Your task to perform on an android device: open wifi settings Image 0: 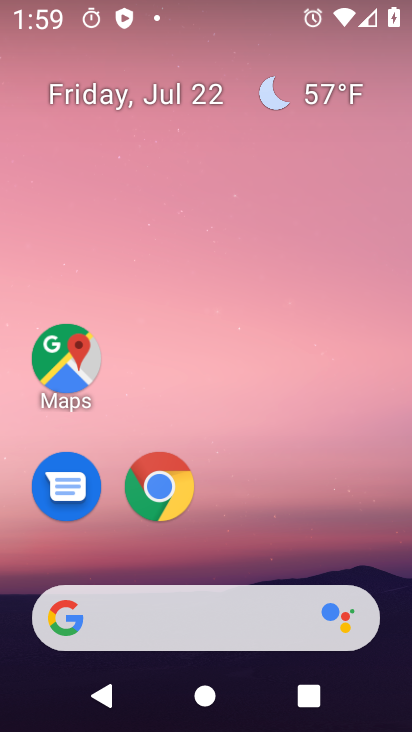
Step 0: drag from (333, 551) to (346, 144)
Your task to perform on an android device: open wifi settings Image 1: 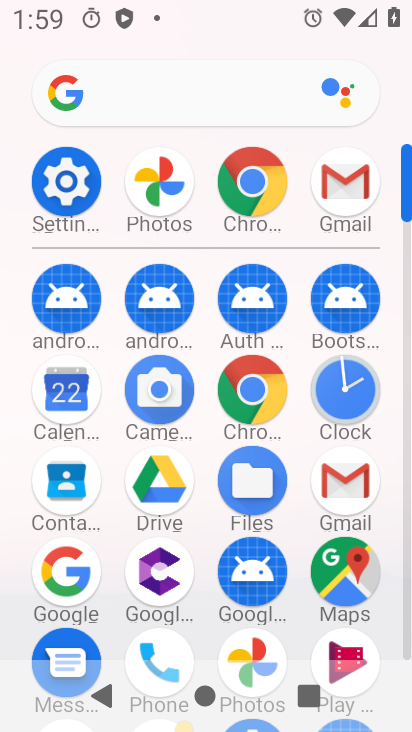
Step 1: click (75, 194)
Your task to perform on an android device: open wifi settings Image 2: 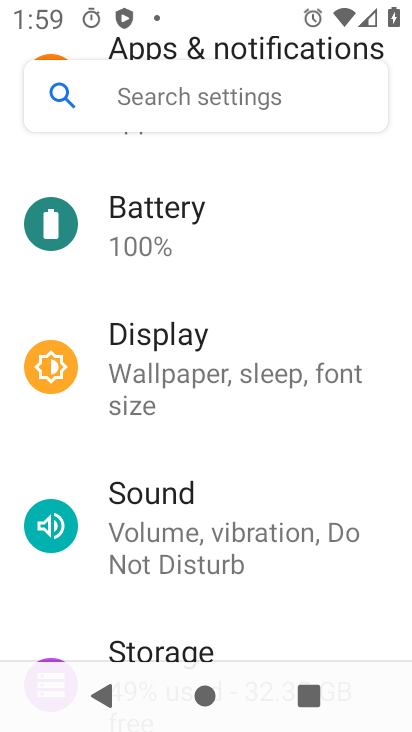
Step 2: drag from (322, 179) to (323, 259)
Your task to perform on an android device: open wifi settings Image 3: 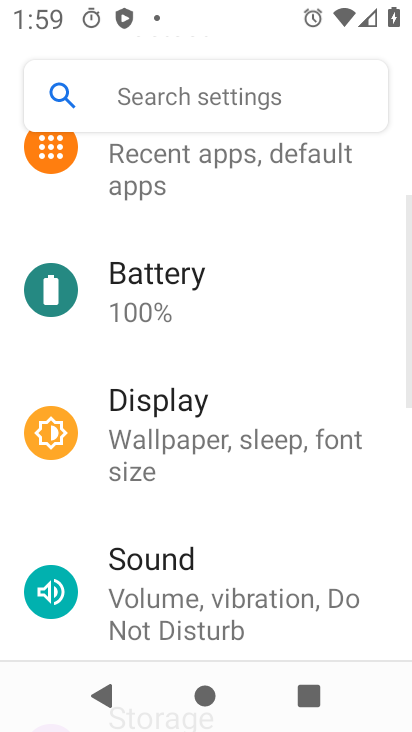
Step 3: drag from (329, 210) to (331, 279)
Your task to perform on an android device: open wifi settings Image 4: 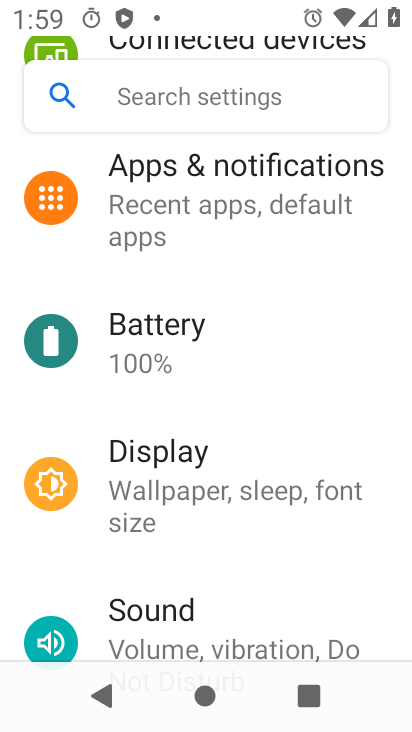
Step 4: drag from (365, 192) to (368, 268)
Your task to perform on an android device: open wifi settings Image 5: 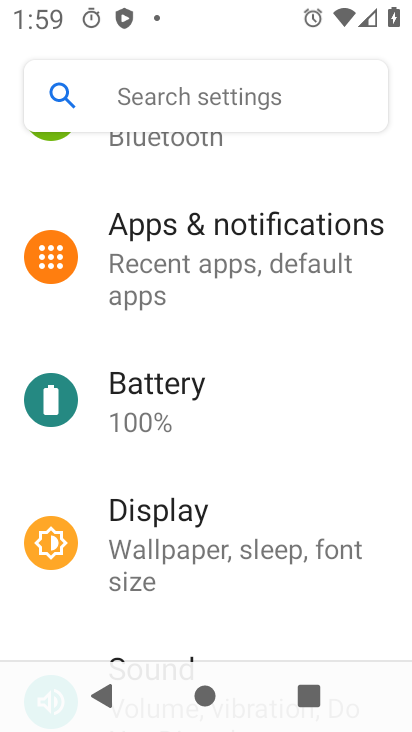
Step 5: drag from (355, 176) to (364, 293)
Your task to perform on an android device: open wifi settings Image 6: 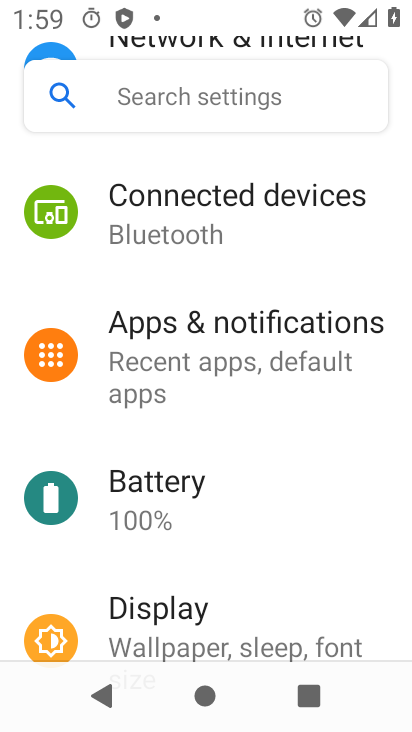
Step 6: drag from (373, 173) to (374, 271)
Your task to perform on an android device: open wifi settings Image 7: 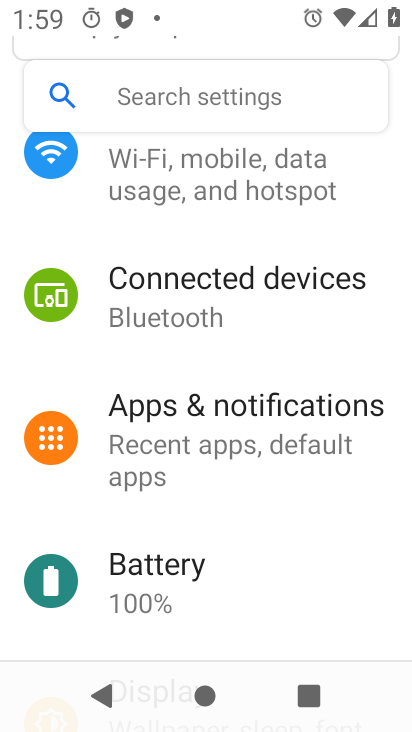
Step 7: drag from (367, 177) to (367, 268)
Your task to perform on an android device: open wifi settings Image 8: 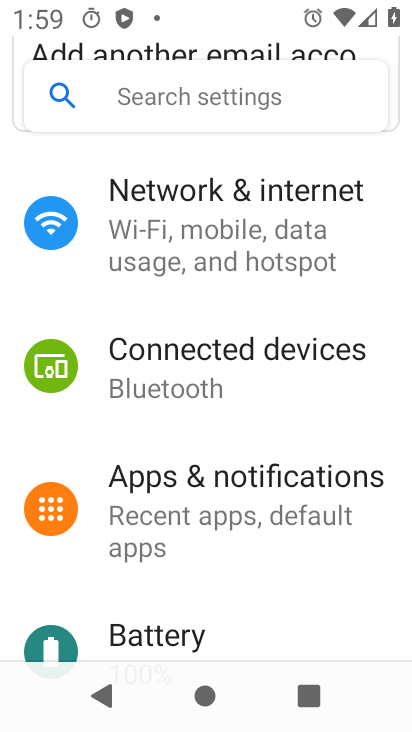
Step 8: drag from (367, 164) to (369, 308)
Your task to perform on an android device: open wifi settings Image 9: 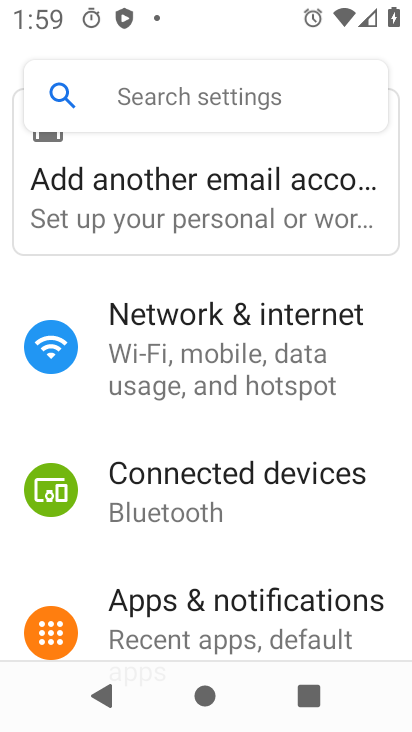
Step 9: click (344, 335)
Your task to perform on an android device: open wifi settings Image 10: 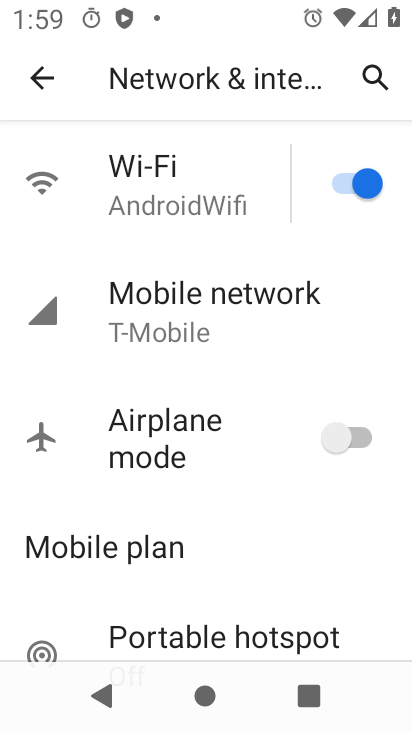
Step 10: click (201, 194)
Your task to perform on an android device: open wifi settings Image 11: 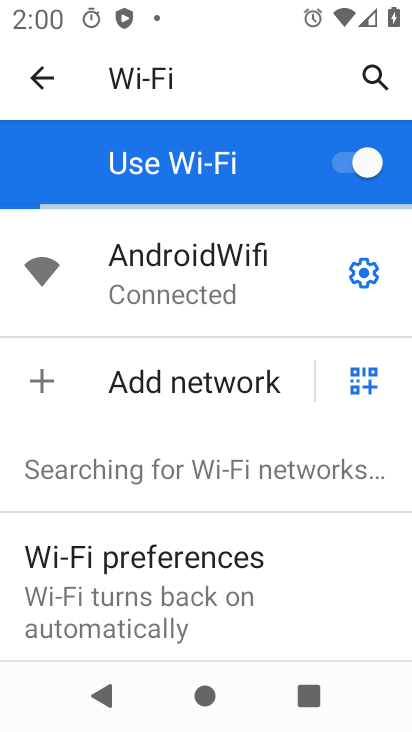
Step 11: task complete